Your task to perform on an android device: Go to display settings Image 0: 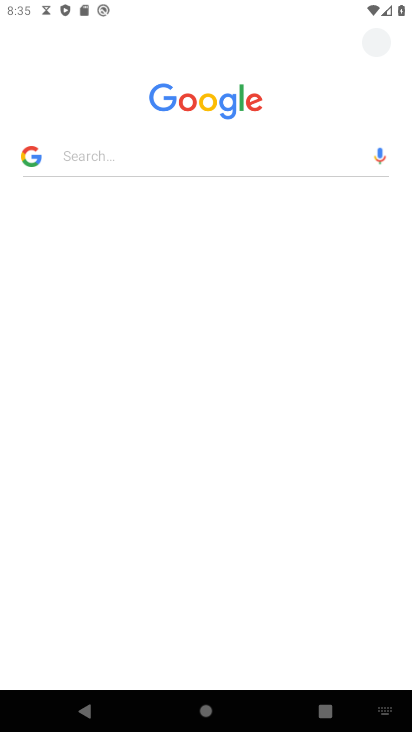
Step 0: press back button
Your task to perform on an android device: Go to display settings Image 1: 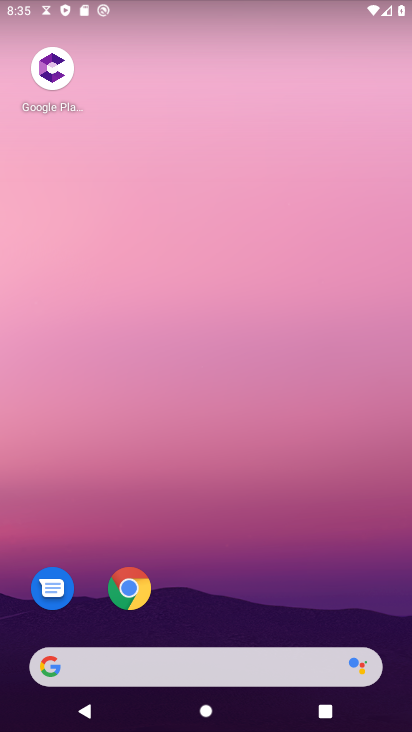
Step 1: drag from (256, 575) to (269, 103)
Your task to perform on an android device: Go to display settings Image 2: 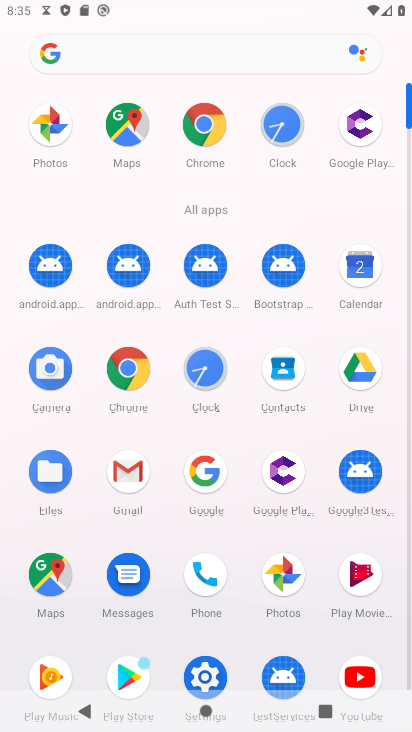
Step 2: click (194, 677)
Your task to perform on an android device: Go to display settings Image 3: 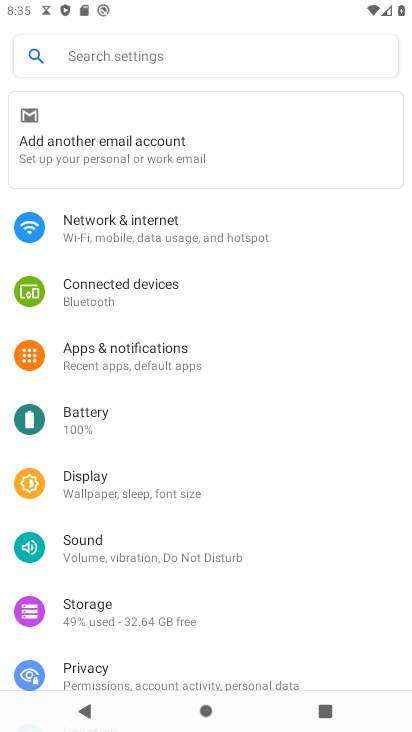
Step 3: click (109, 375)
Your task to perform on an android device: Go to display settings Image 4: 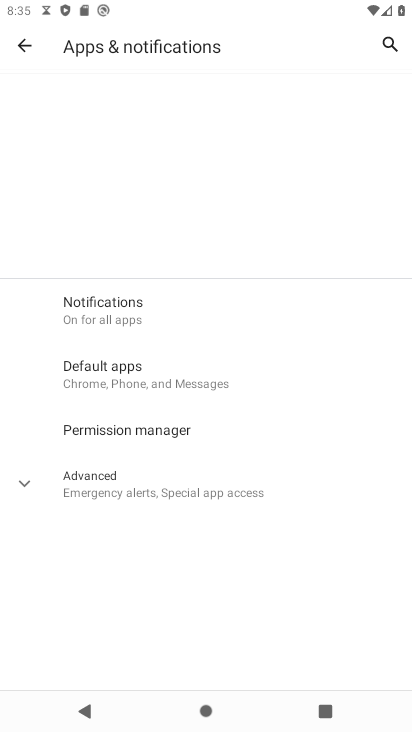
Step 4: click (21, 38)
Your task to perform on an android device: Go to display settings Image 5: 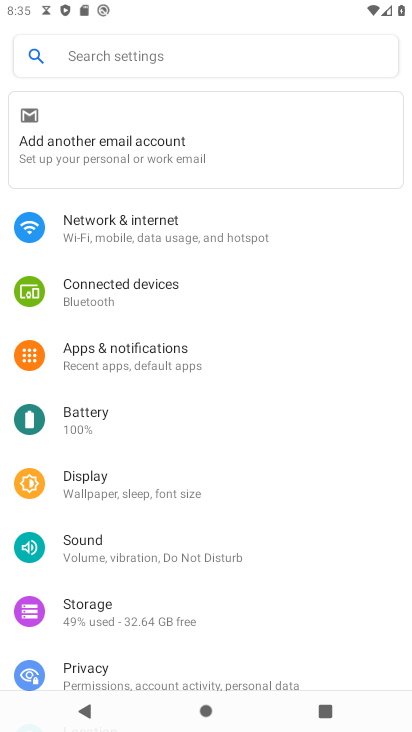
Step 5: click (100, 476)
Your task to perform on an android device: Go to display settings Image 6: 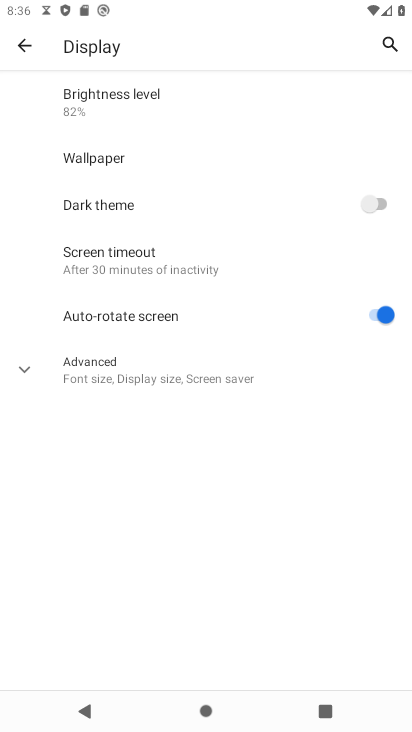
Step 6: task complete